Your task to perform on an android device: Go to Android settings Image 0: 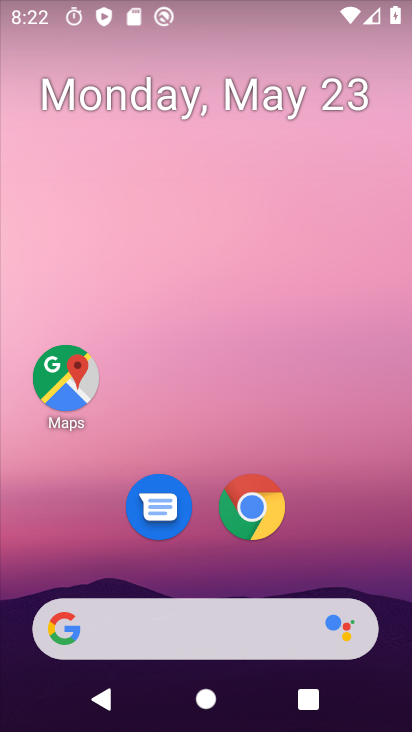
Step 0: drag from (356, 512) to (260, 0)
Your task to perform on an android device: Go to Android settings Image 1: 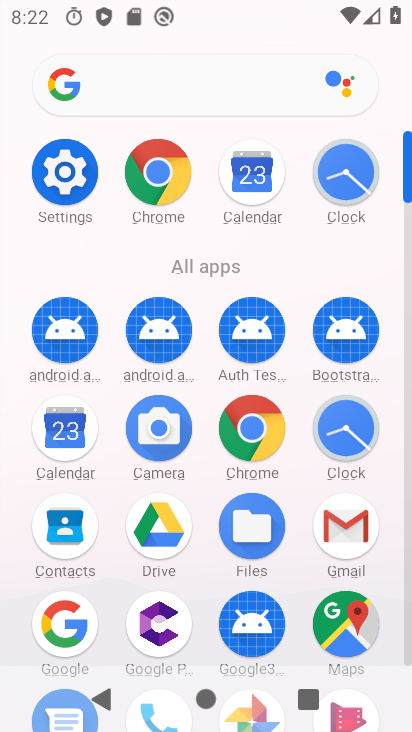
Step 1: click (83, 171)
Your task to perform on an android device: Go to Android settings Image 2: 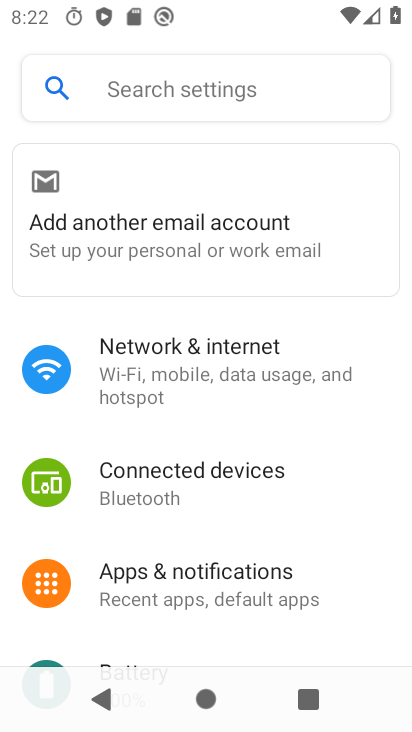
Step 2: task complete